Your task to perform on an android device: toggle improve location accuracy Image 0: 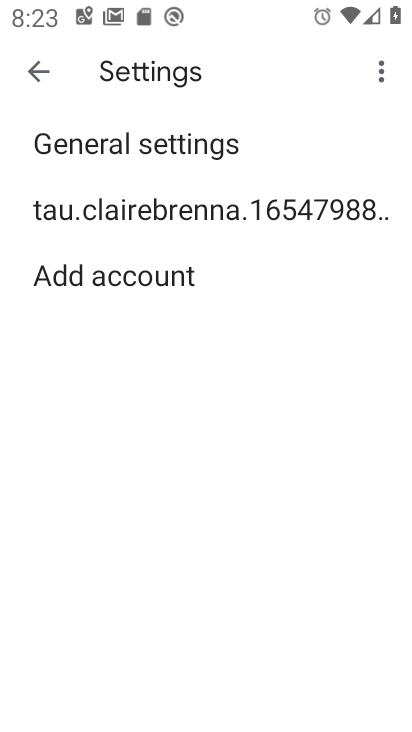
Step 0: press home button
Your task to perform on an android device: toggle improve location accuracy Image 1: 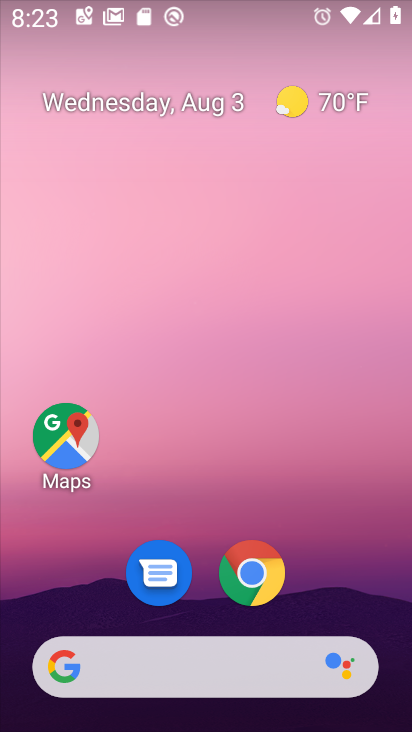
Step 1: drag from (335, 612) to (319, 6)
Your task to perform on an android device: toggle improve location accuracy Image 2: 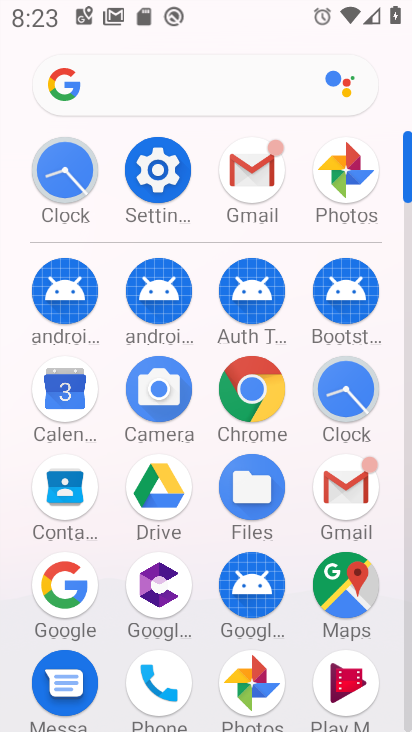
Step 2: click (155, 175)
Your task to perform on an android device: toggle improve location accuracy Image 3: 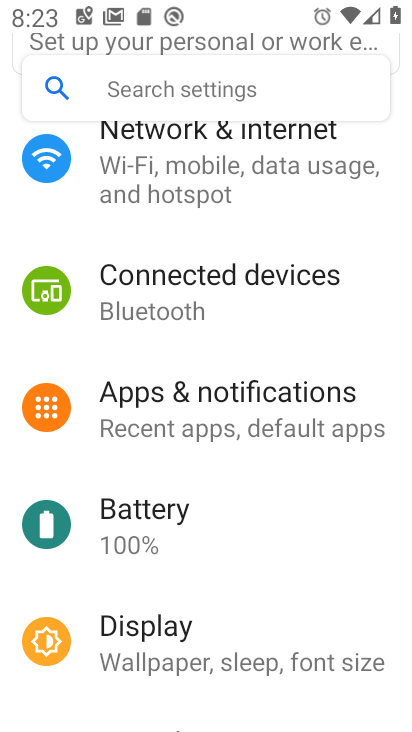
Step 3: drag from (266, 563) to (253, 159)
Your task to perform on an android device: toggle improve location accuracy Image 4: 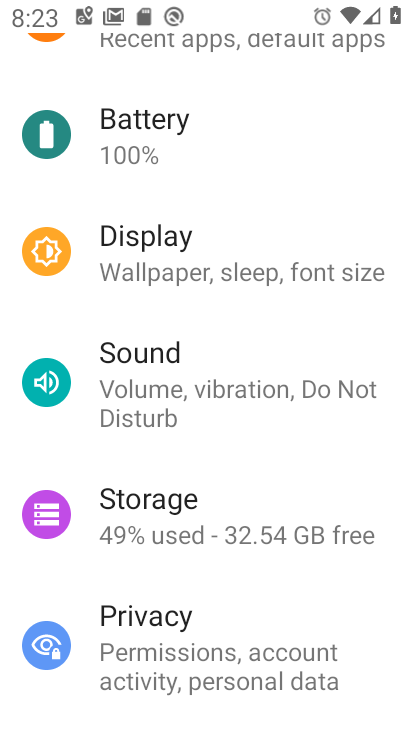
Step 4: drag from (325, 552) to (296, 166)
Your task to perform on an android device: toggle improve location accuracy Image 5: 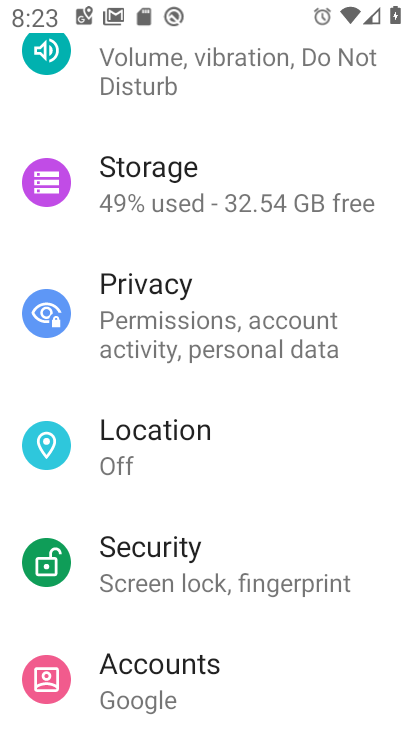
Step 5: click (127, 463)
Your task to perform on an android device: toggle improve location accuracy Image 6: 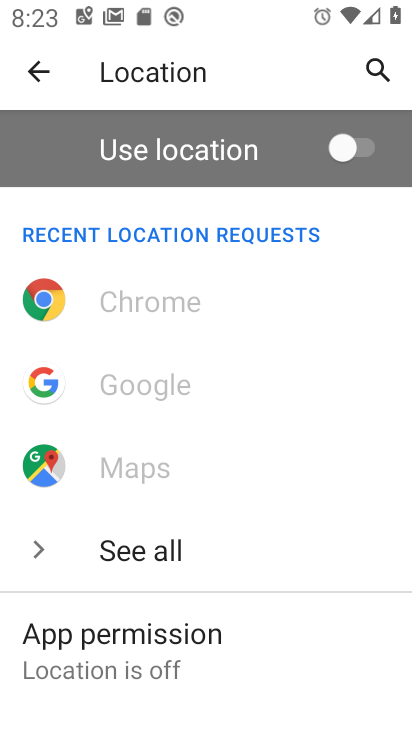
Step 6: drag from (276, 576) to (232, 202)
Your task to perform on an android device: toggle improve location accuracy Image 7: 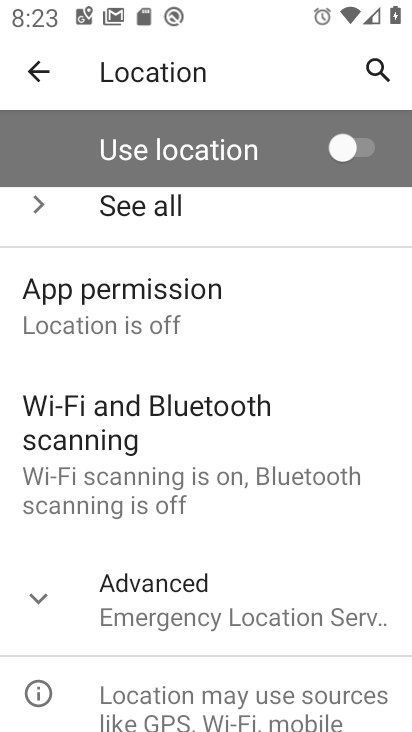
Step 7: click (40, 605)
Your task to perform on an android device: toggle improve location accuracy Image 8: 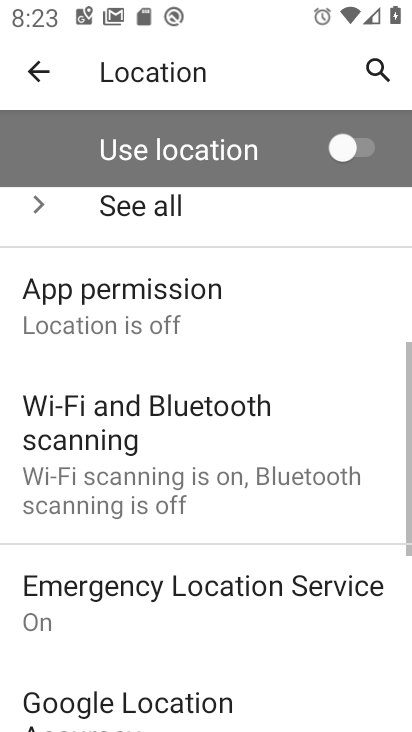
Step 8: drag from (223, 608) to (217, 297)
Your task to perform on an android device: toggle improve location accuracy Image 9: 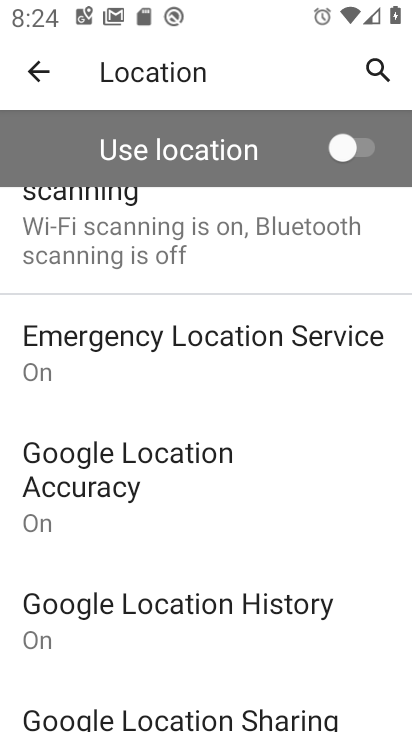
Step 9: click (96, 480)
Your task to perform on an android device: toggle improve location accuracy Image 10: 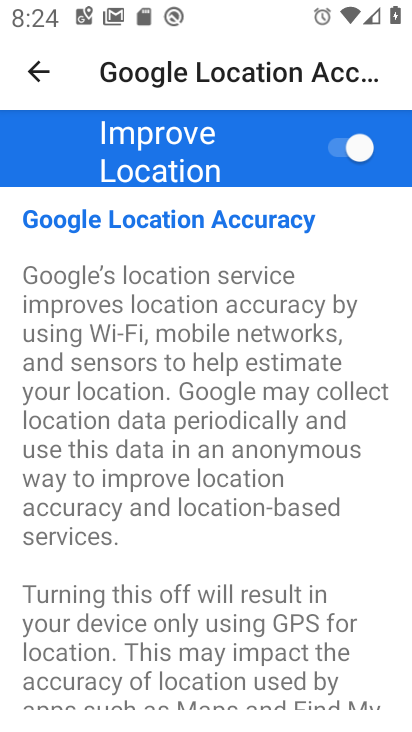
Step 10: click (357, 152)
Your task to perform on an android device: toggle improve location accuracy Image 11: 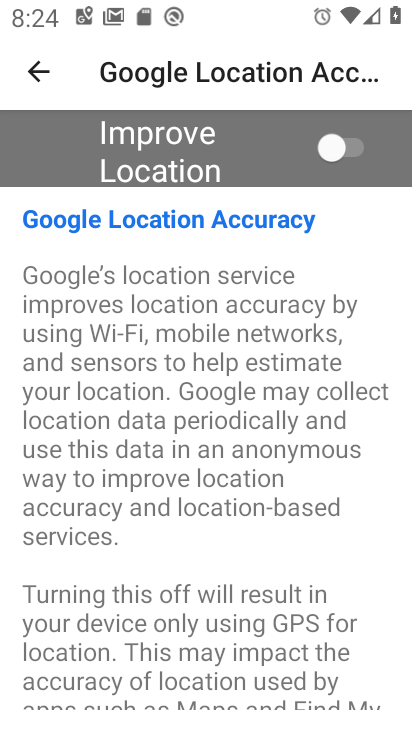
Step 11: task complete